Your task to perform on an android device: Open wifi settings Image 0: 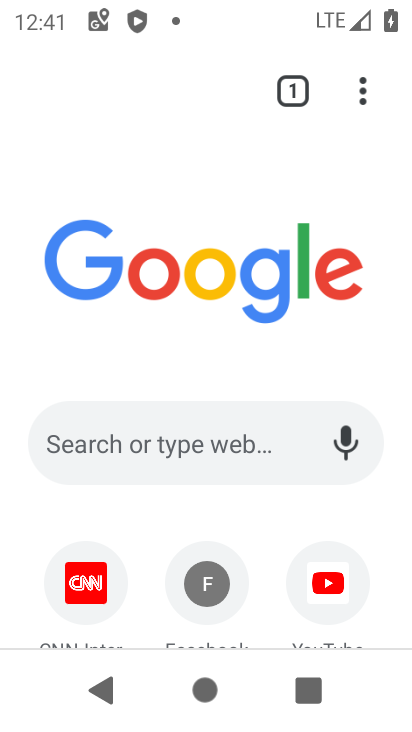
Step 0: drag from (346, 624) to (293, 268)
Your task to perform on an android device: Open wifi settings Image 1: 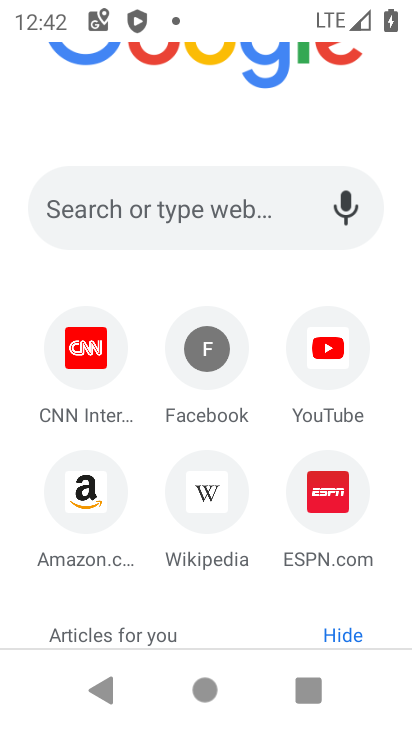
Step 1: press back button
Your task to perform on an android device: Open wifi settings Image 2: 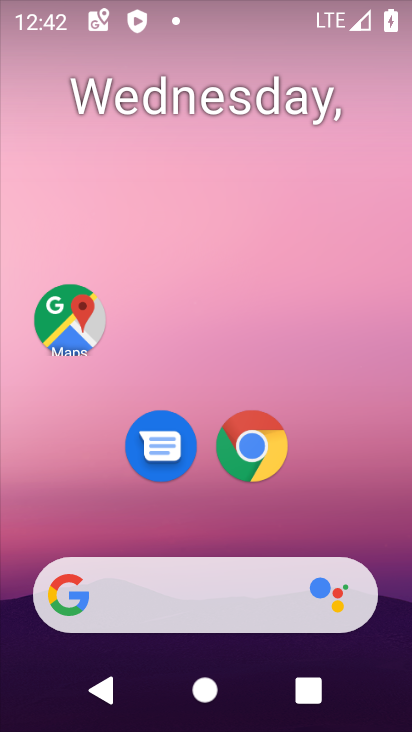
Step 2: drag from (245, 697) to (235, 245)
Your task to perform on an android device: Open wifi settings Image 3: 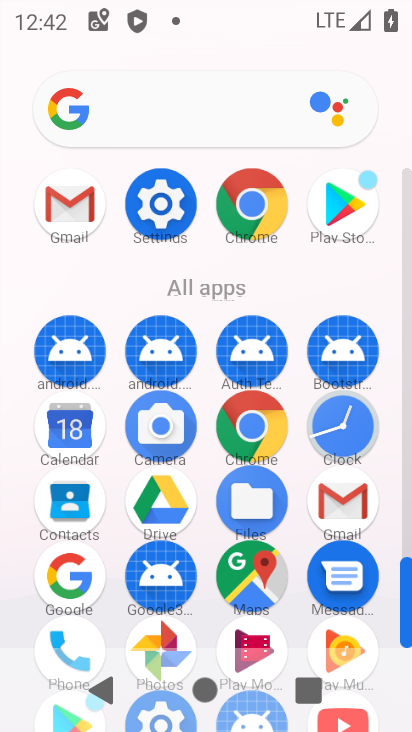
Step 3: click (155, 192)
Your task to perform on an android device: Open wifi settings Image 4: 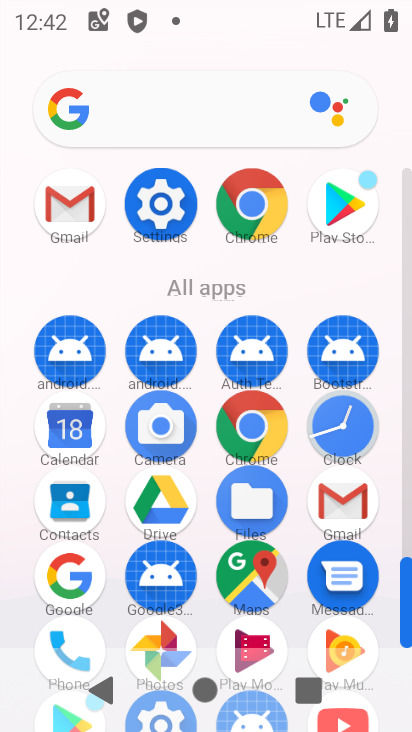
Step 4: click (156, 192)
Your task to perform on an android device: Open wifi settings Image 5: 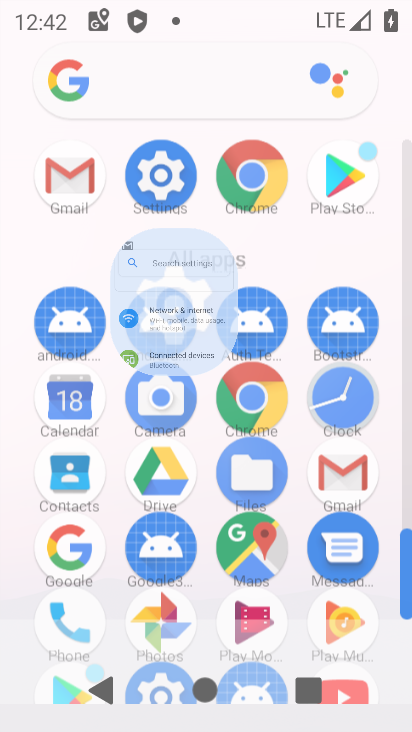
Step 5: click (156, 192)
Your task to perform on an android device: Open wifi settings Image 6: 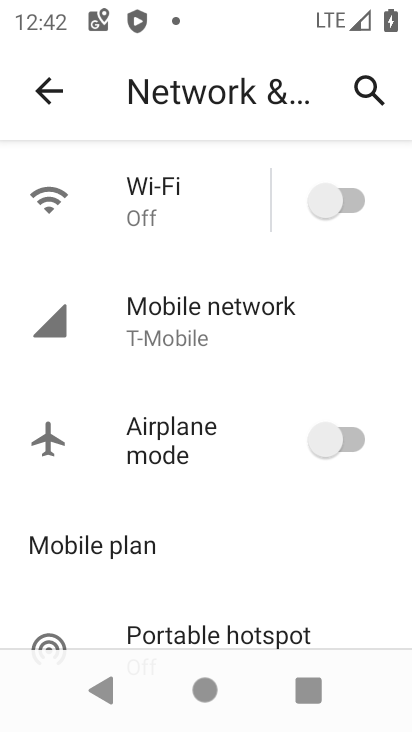
Step 6: click (328, 202)
Your task to perform on an android device: Open wifi settings Image 7: 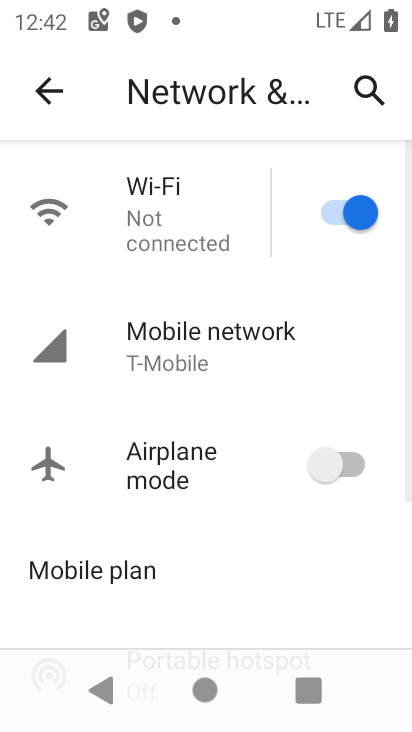
Step 7: task complete